Your task to perform on an android device: Search for sushi restaurants on Maps Image 0: 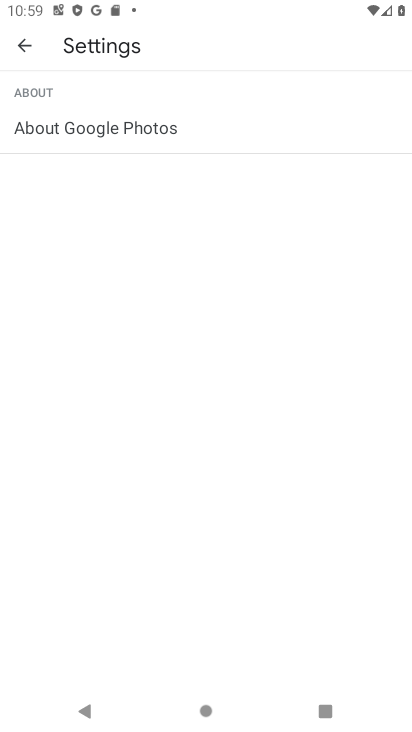
Step 0: press home button
Your task to perform on an android device: Search for sushi restaurants on Maps Image 1: 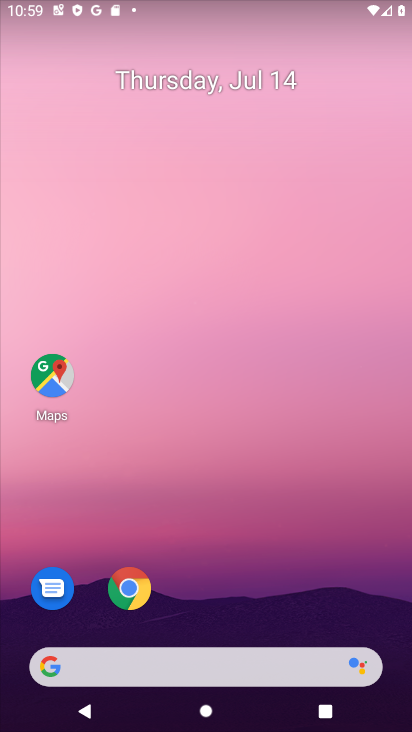
Step 1: drag from (295, 568) to (218, 58)
Your task to perform on an android device: Search for sushi restaurants on Maps Image 2: 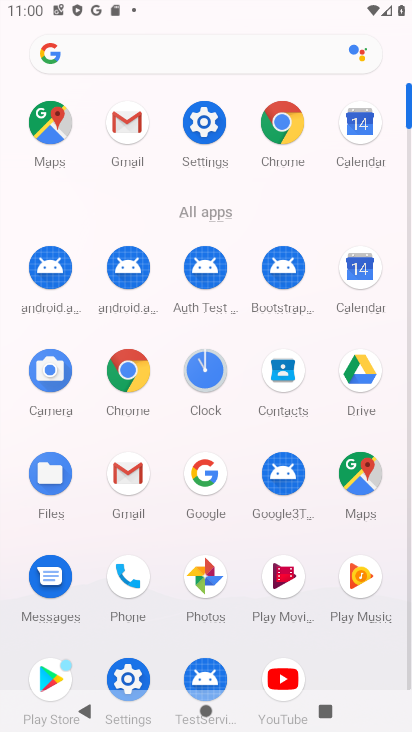
Step 2: click (361, 477)
Your task to perform on an android device: Search for sushi restaurants on Maps Image 3: 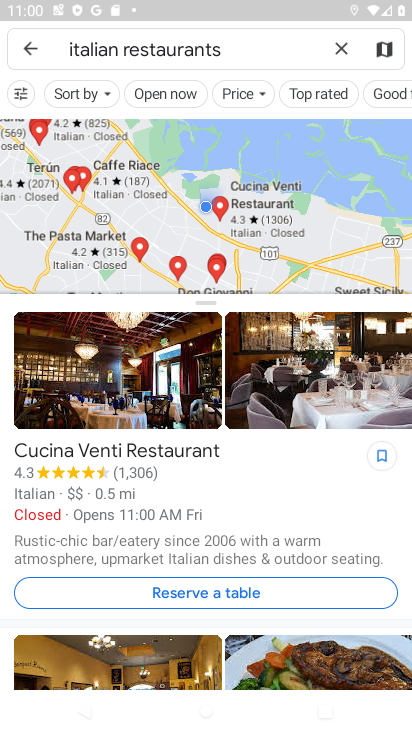
Step 3: click (339, 47)
Your task to perform on an android device: Search for sushi restaurants on Maps Image 4: 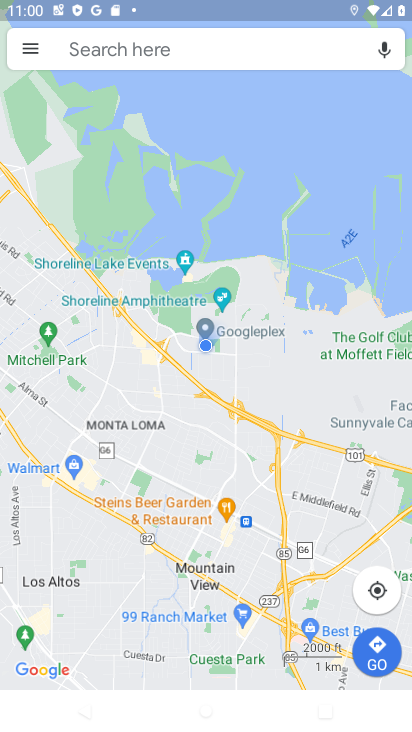
Step 4: click (210, 44)
Your task to perform on an android device: Search for sushi restaurants on Maps Image 5: 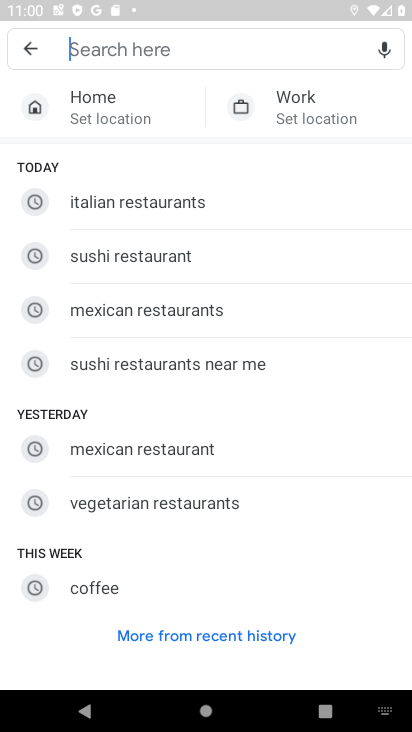
Step 5: click (249, 54)
Your task to perform on an android device: Search for sushi restaurants on Maps Image 6: 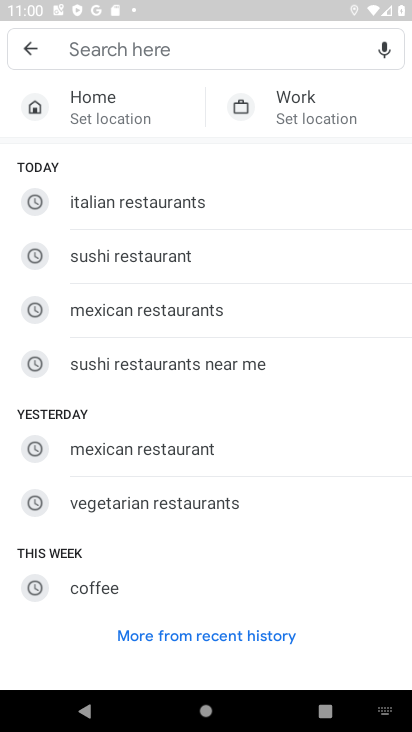
Step 6: type "sushi restaurants"
Your task to perform on an android device: Search for sushi restaurants on Maps Image 7: 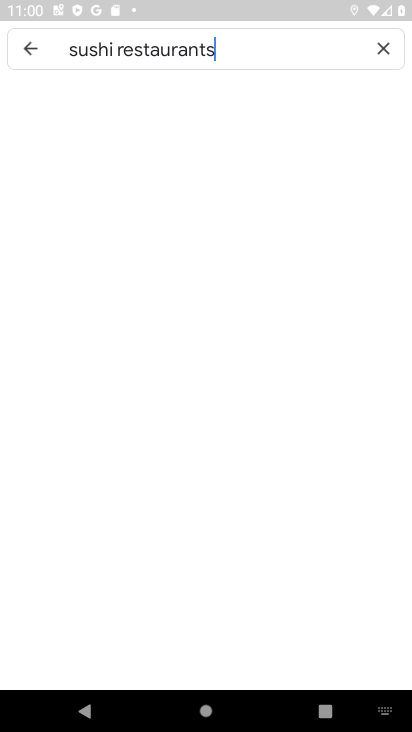
Step 7: type ""
Your task to perform on an android device: Search for sushi restaurants on Maps Image 8: 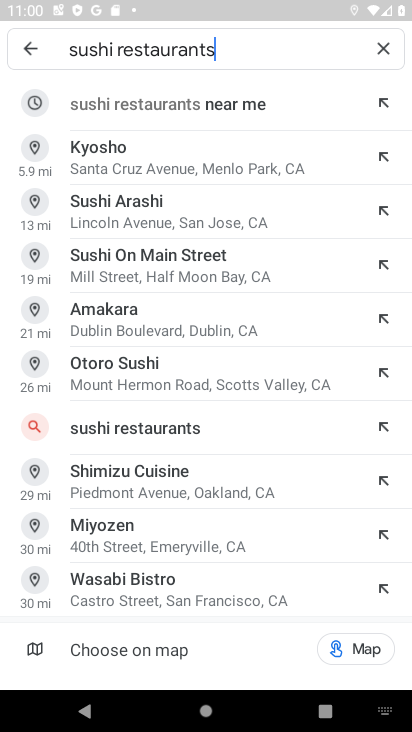
Step 8: click (156, 104)
Your task to perform on an android device: Search for sushi restaurants on Maps Image 9: 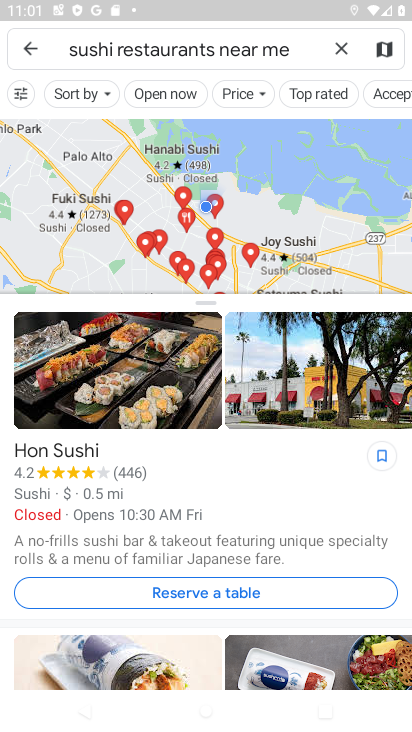
Step 9: task complete